Your task to perform on an android device: Go to Wikipedia Image 0: 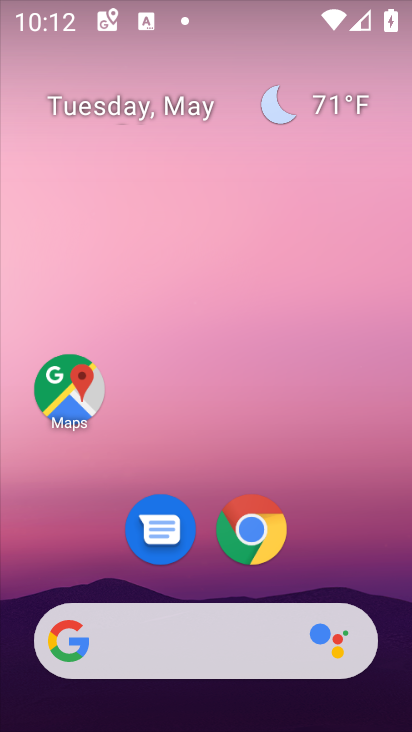
Step 0: drag from (221, 597) to (223, 328)
Your task to perform on an android device: Go to Wikipedia Image 1: 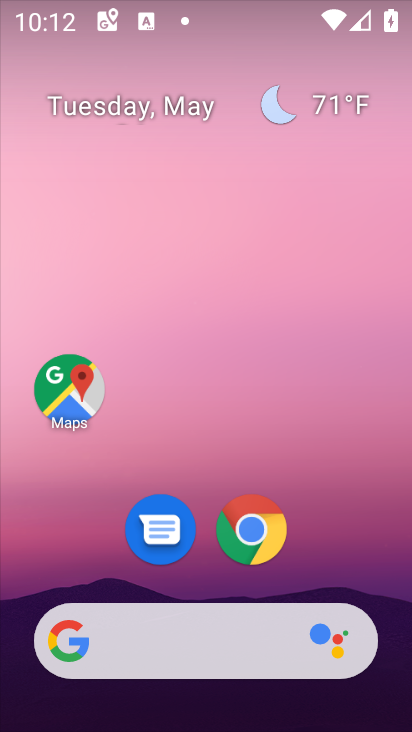
Step 1: drag from (266, 667) to (235, 393)
Your task to perform on an android device: Go to Wikipedia Image 2: 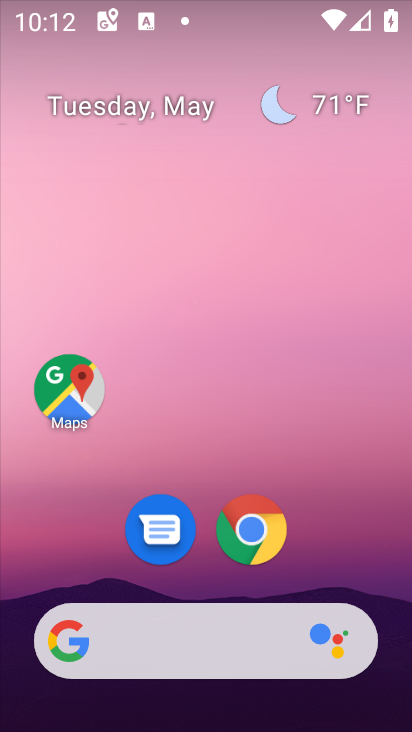
Step 2: drag from (243, 586) to (271, 108)
Your task to perform on an android device: Go to Wikipedia Image 3: 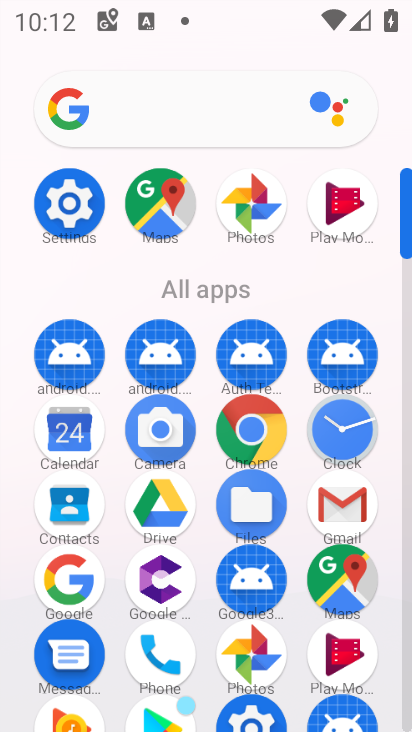
Step 3: click (247, 430)
Your task to perform on an android device: Go to Wikipedia Image 4: 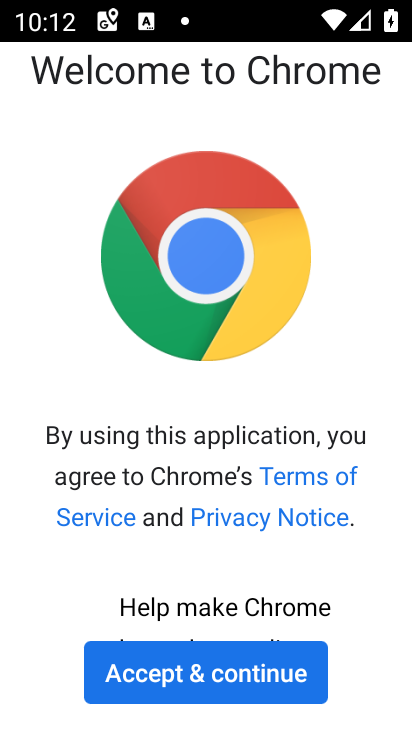
Step 4: click (222, 682)
Your task to perform on an android device: Go to Wikipedia Image 5: 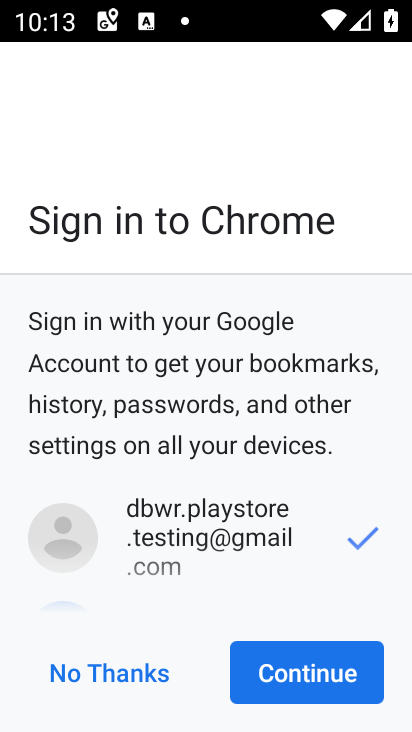
Step 5: click (280, 689)
Your task to perform on an android device: Go to Wikipedia Image 6: 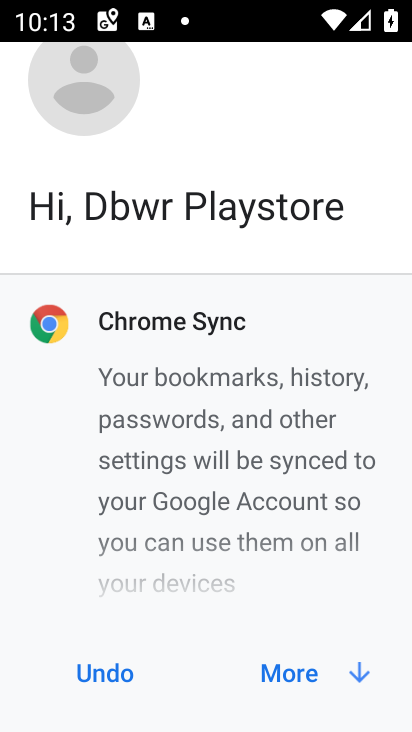
Step 6: click (280, 689)
Your task to perform on an android device: Go to Wikipedia Image 7: 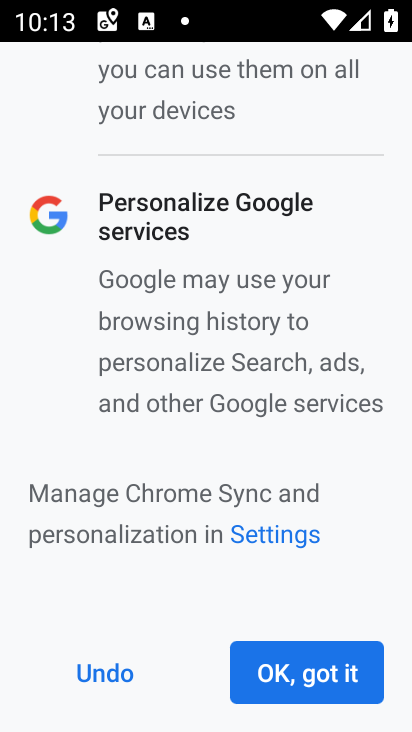
Step 7: click (280, 689)
Your task to perform on an android device: Go to Wikipedia Image 8: 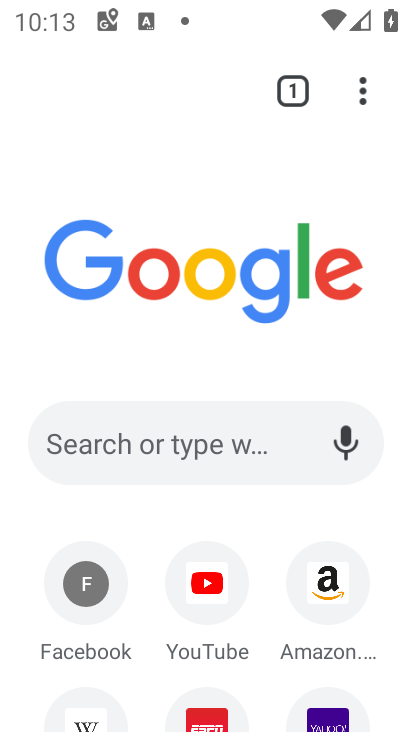
Step 8: click (370, 98)
Your task to perform on an android device: Go to Wikipedia Image 9: 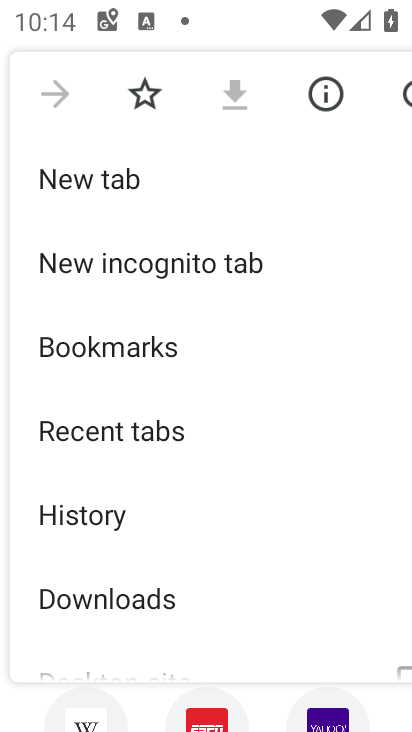
Step 9: press back button
Your task to perform on an android device: Go to Wikipedia Image 10: 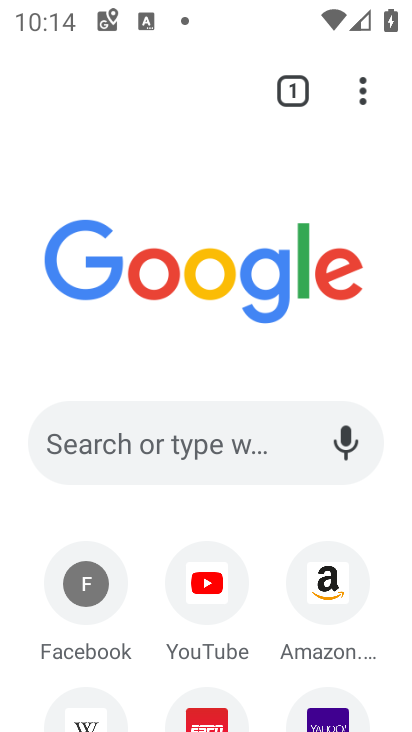
Step 10: click (78, 715)
Your task to perform on an android device: Go to Wikipedia Image 11: 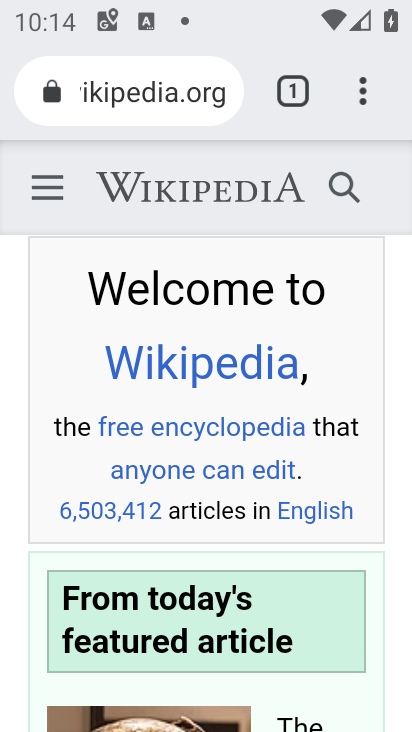
Step 11: task complete